Your task to perform on an android device: toggle wifi Image 0: 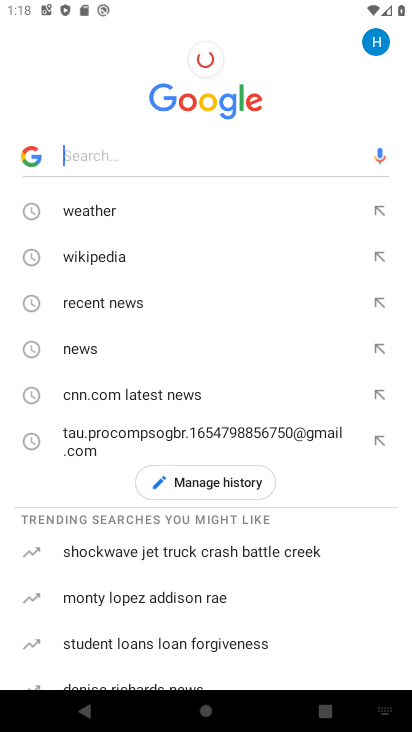
Step 0: press home button
Your task to perform on an android device: toggle wifi Image 1: 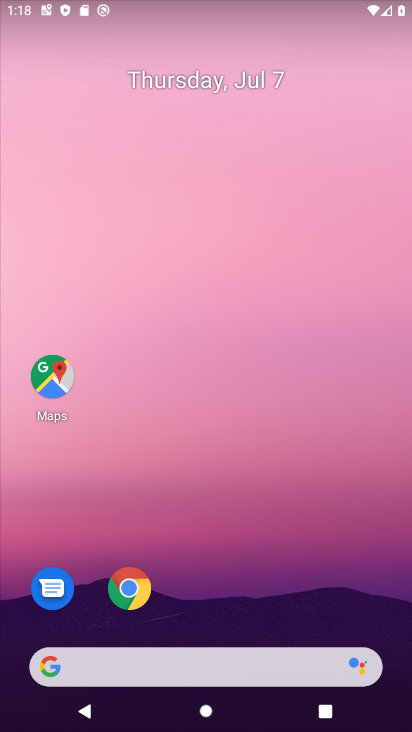
Step 1: drag from (195, 584) to (202, 169)
Your task to perform on an android device: toggle wifi Image 2: 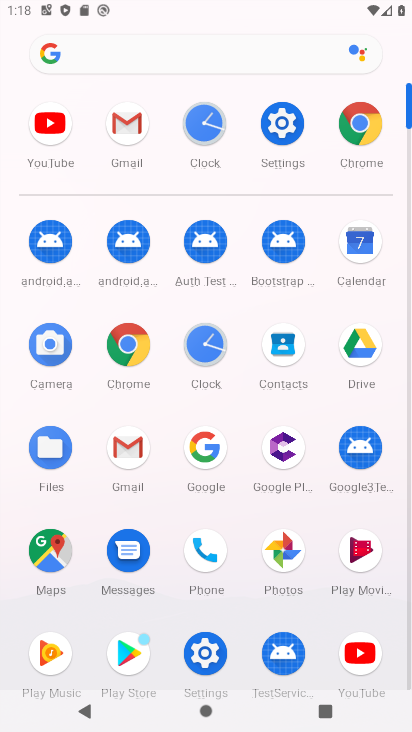
Step 2: click (278, 121)
Your task to perform on an android device: toggle wifi Image 3: 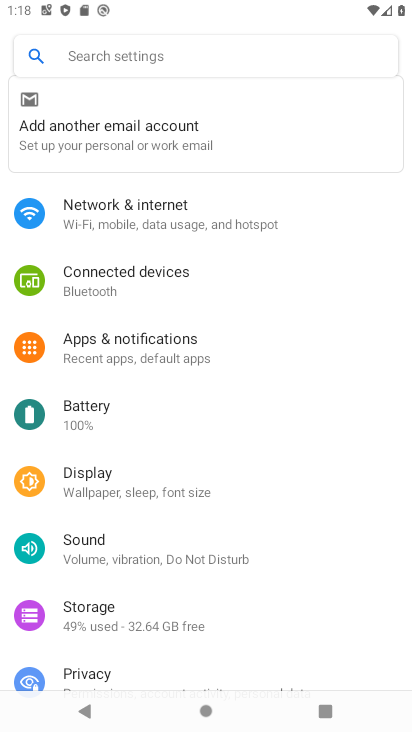
Step 3: click (175, 223)
Your task to perform on an android device: toggle wifi Image 4: 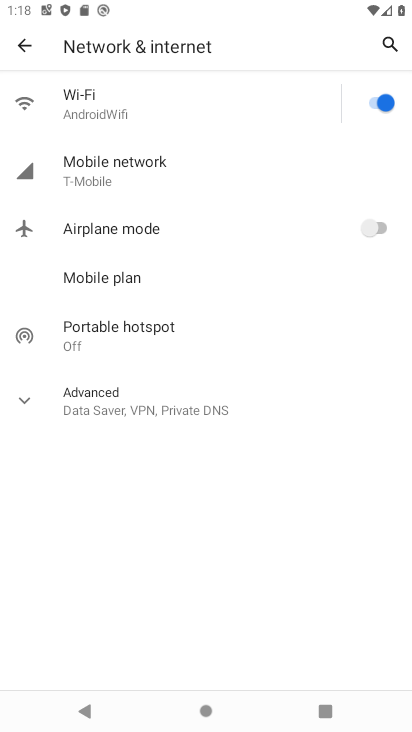
Step 4: click (365, 96)
Your task to perform on an android device: toggle wifi Image 5: 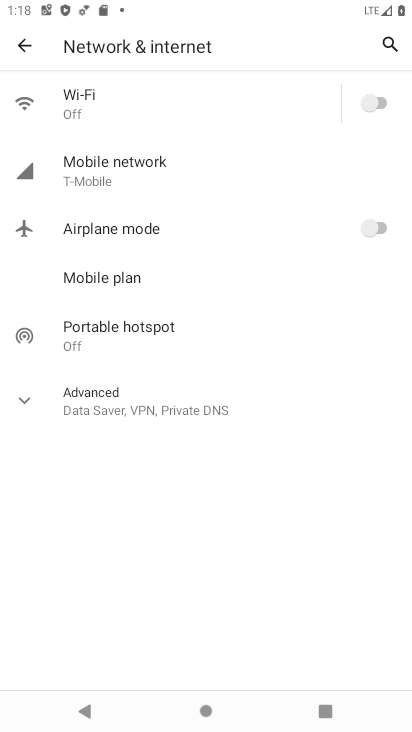
Step 5: task complete